Your task to perform on an android device: Is it going to rain tomorrow? Image 0: 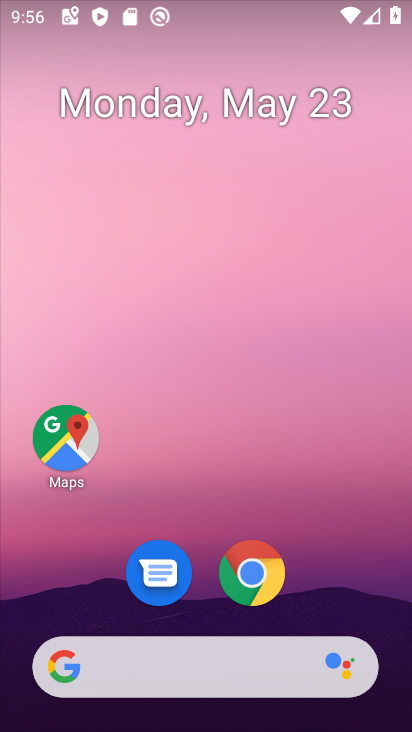
Step 0: click (239, 665)
Your task to perform on an android device: Is it going to rain tomorrow? Image 1: 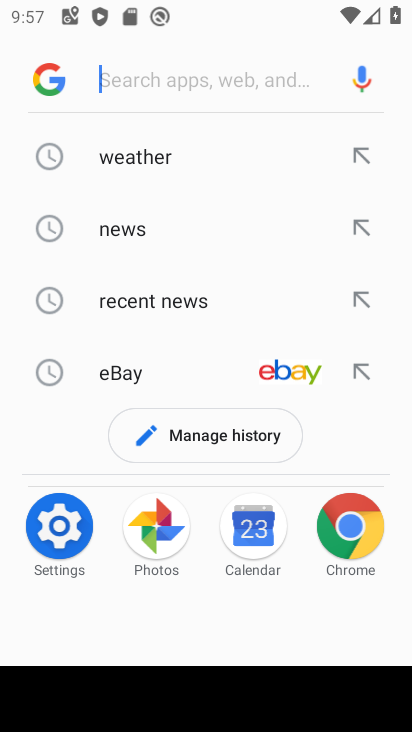
Step 1: click (163, 163)
Your task to perform on an android device: Is it going to rain tomorrow? Image 2: 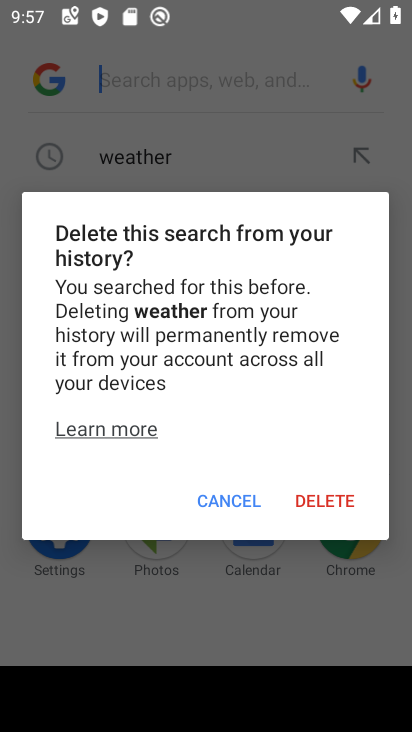
Step 2: click (241, 505)
Your task to perform on an android device: Is it going to rain tomorrow? Image 3: 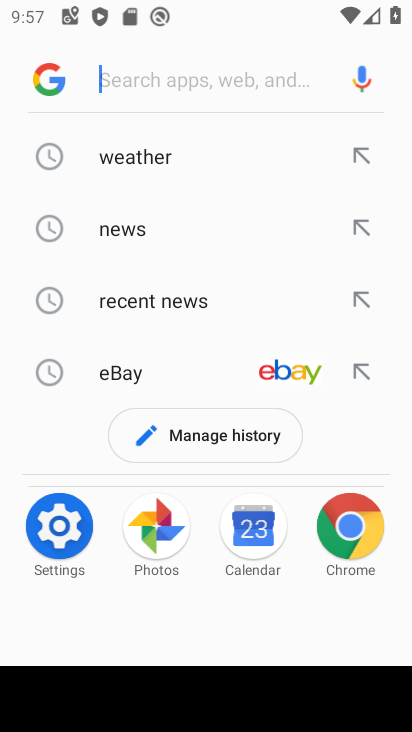
Step 3: click (168, 163)
Your task to perform on an android device: Is it going to rain tomorrow? Image 4: 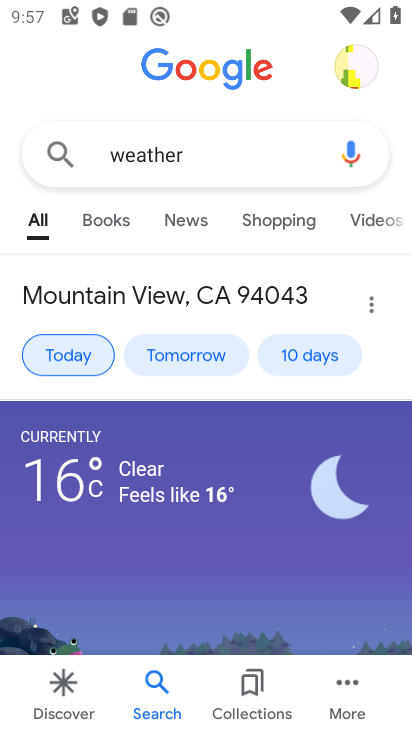
Step 4: click (198, 354)
Your task to perform on an android device: Is it going to rain tomorrow? Image 5: 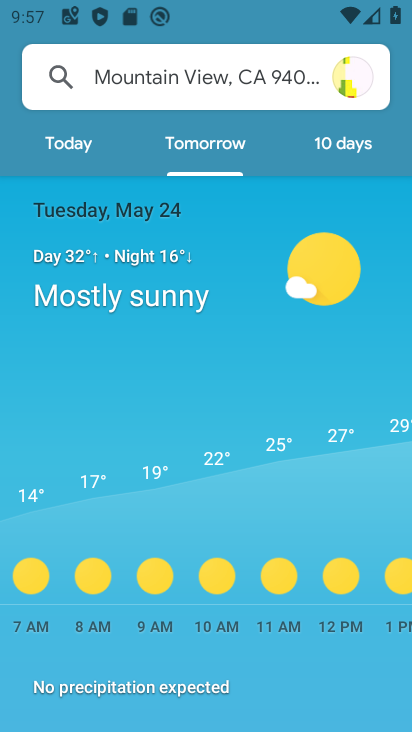
Step 5: task complete